Your task to perform on an android device: Clear all items from cart on ebay.com. Search for usb-c to usb-b on ebay.com, select the first entry, add it to the cart, then select checkout. Image 0: 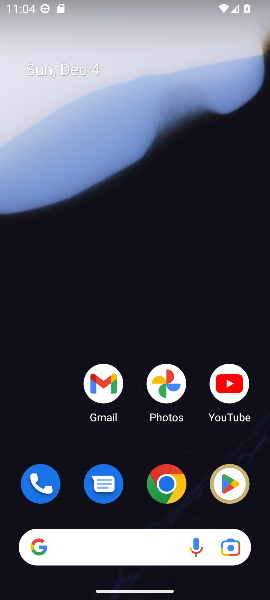
Step 0: click (169, 483)
Your task to perform on an android device: Clear all items from cart on ebay.com. Search for usb-c to usb-b on ebay.com, select the first entry, add it to the cart, then select checkout. Image 1: 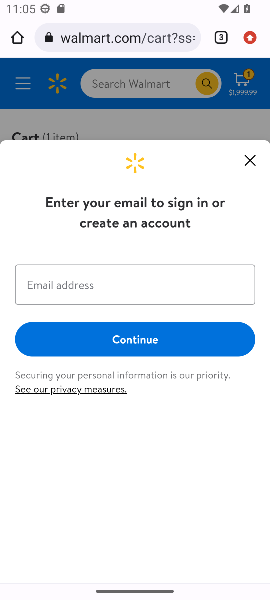
Step 1: click (116, 34)
Your task to perform on an android device: Clear all items from cart on ebay.com. Search for usb-c to usb-b on ebay.com, select the first entry, add it to the cart, then select checkout. Image 2: 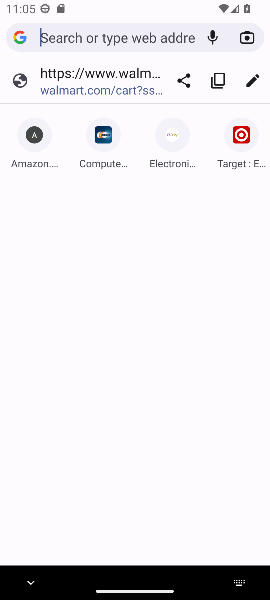
Step 2: type "ebay.com"
Your task to perform on an android device: Clear all items from cart on ebay.com. Search for usb-c to usb-b on ebay.com, select the first entry, add it to the cart, then select checkout. Image 3: 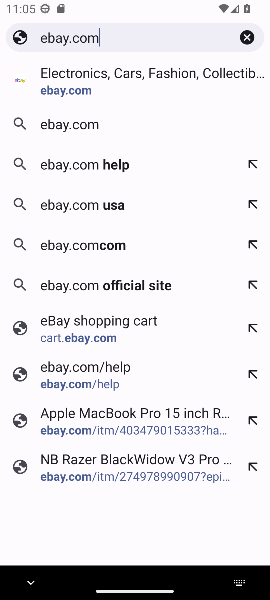
Step 3: click (79, 77)
Your task to perform on an android device: Clear all items from cart on ebay.com. Search for usb-c to usb-b on ebay.com, select the first entry, add it to the cart, then select checkout. Image 4: 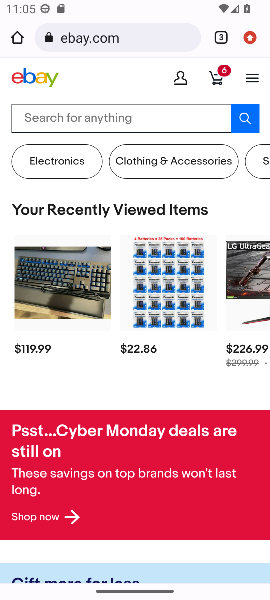
Step 4: click (215, 83)
Your task to perform on an android device: Clear all items from cart on ebay.com. Search for usb-c to usb-b on ebay.com, select the first entry, add it to the cart, then select checkout. Image 5: 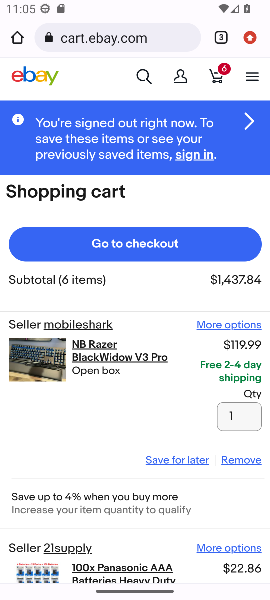
Step 5: click (237, 464)
Your task to perform on an android device: Clear all items from cart on ebay.com. Search for usb-c to usb-b on ebay.com, select the first entry, add it to the cart, then select checkout. Image 6: 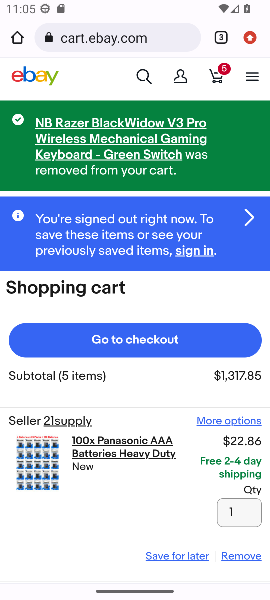
Step 6: drag from (143, 425) to (121, 288)
Your task to perform on an android device: Clear all items from cart on ebay.com. Search for usb-c to usb-b on ebay.com, select the first entry, add it to the cart, then select checkout. Image 7: 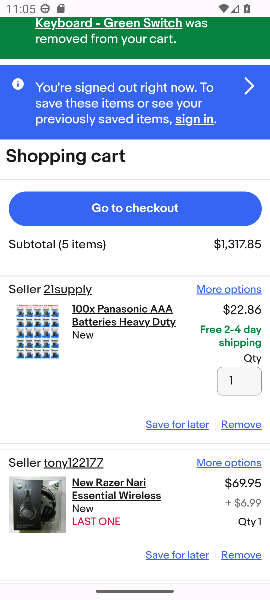
Step 7: click (232, 422)
Your task to perform on an android device: Clear all items from cart on ebay.com. Search for usb-c to usb-b on ebay.com, select the first entry, add it to the cart, then select checkout. Image 8: 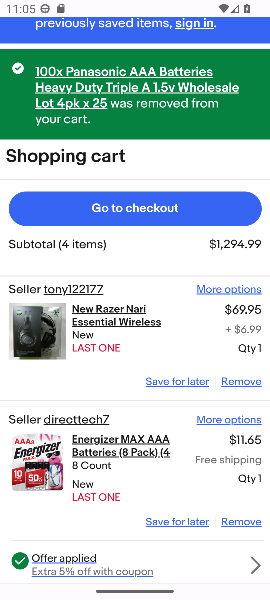
Step 8: click (230, 385)
Your task to perform on an android device: Clear all items from cart on ebay.com. Search for usb-c to usb-b on ebay.com, select the first entry, add it to the cart, then select checkout. Image 9: 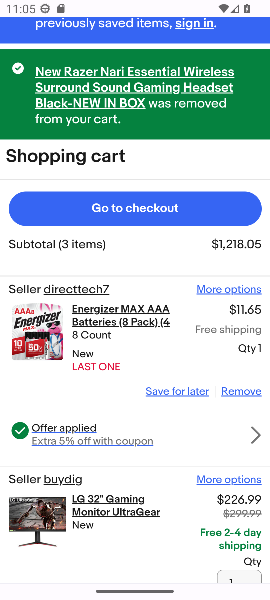
Step 9: click (230, 385)
Your task to perform on an android device: Clear all items from cart on ebay.com. Search for usb-c to usb-b on ebay.com, select the first entry, add it to the cart, then select checkout. Image 10: 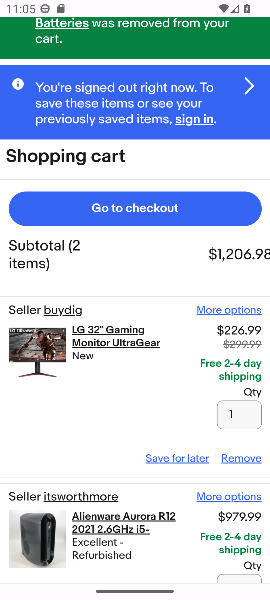
Step 10: click (225, 460)
Your task to perform on an android device: Clear all items from cart on ebay.com. Search for usb-c to usb-b on ebay.com, select the first entry, add it to the cart, then select checkout. Image 11: 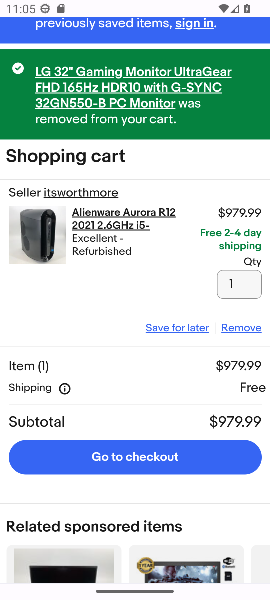
Step 11: click (221, 328)
Your task to perform on an android device: Clear all items from cart on ebay.com. Search for usb-c to usb-b on ebay.com, select the first entry, add it to the cart, then select checkout. Image 12: 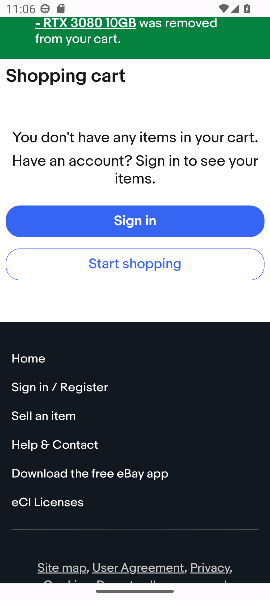
Step 12: drag from (148, 121) to (148, 292)
Your task to perform on an android device: Clear all items from cart on ebay.com. Search for usb-c to usb-b on ebay.com, select the first entry, add it to the cart, then select checkout. Image 13: 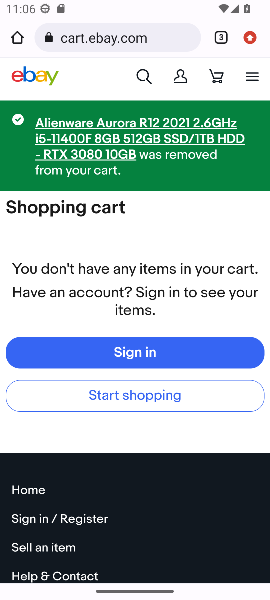
Step 13: click (139, 77)
Your task to perform on an android device: Clear all items from cart on ebay.com. Search for usb-c to usb-b on ebay.com, select the first entry, add it to the cart, then select checkout. Image 14: 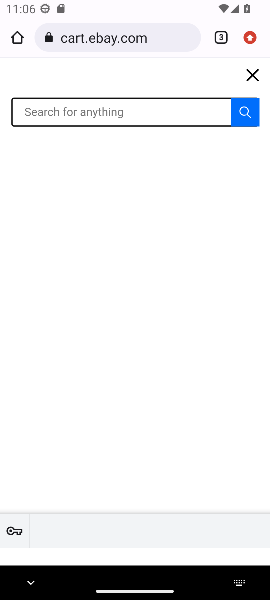
Step 14: type "usb-c to usb-b"
Your task to perform on an android device: Clear all items from cart on ebay.com. Search for usb-c to usb-b on ebay.com, select the first entry, add it to the cart, then select checkout. Image 15: 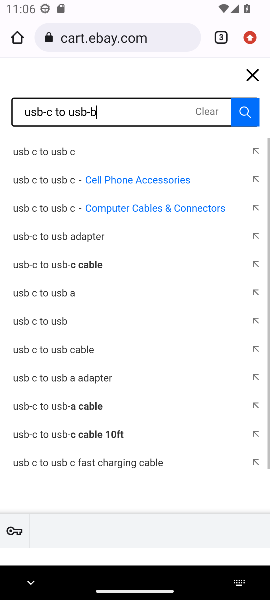
Step 15: click (245, 112)
Your task to perform on an android device: Clear all items from cart on ebay.com. Search for usb-c to usb-b on ebay.com, select the first entry, add it to the cart, then select checkout. Image 16: 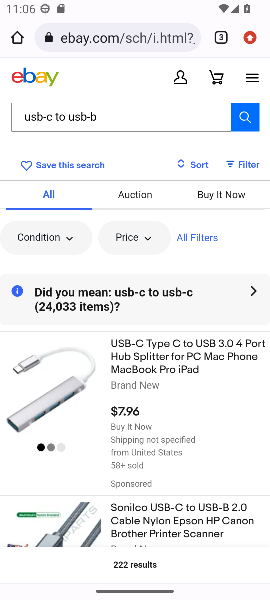
Step 16: click (162, 361)
Your task to perform on an android device: Clear all items from cart on ebay.com. Search for usb-c to usb-b on ebay.com, select the first entry, add it to the cart, then select checkout. Image 17: 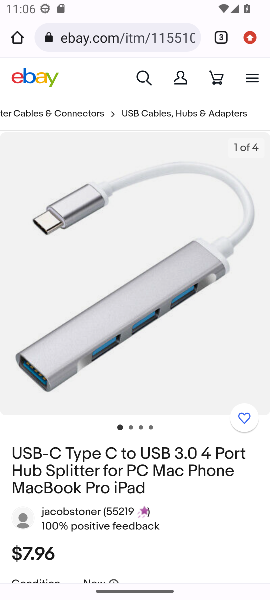
Step 17: task complete